Your task to perform on an android device: create a new album in the google photos Image 0: 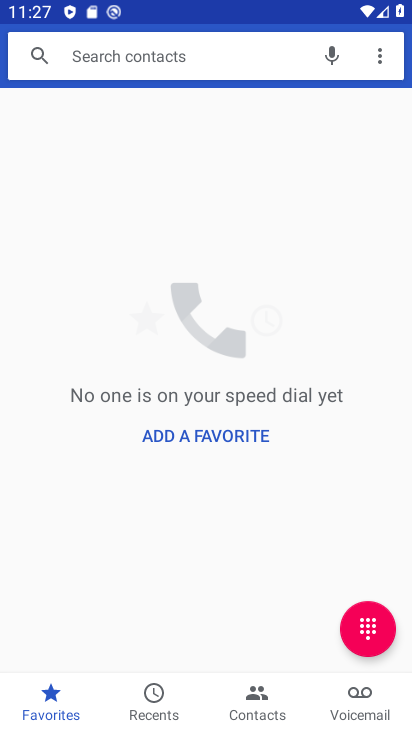
Step 0: press home button
Your task to perform on an android device: create a new album in the google photos Image 1: 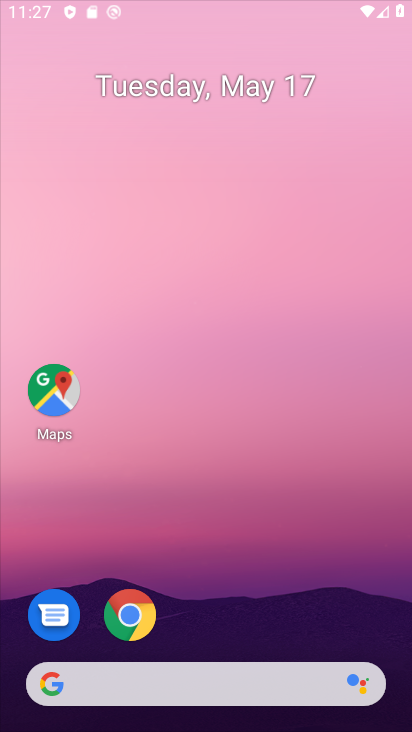
Step 1: drag from (247, 542) to (244, 26)
Your task to perform on an android device: create a new album in the google photos Image 2: 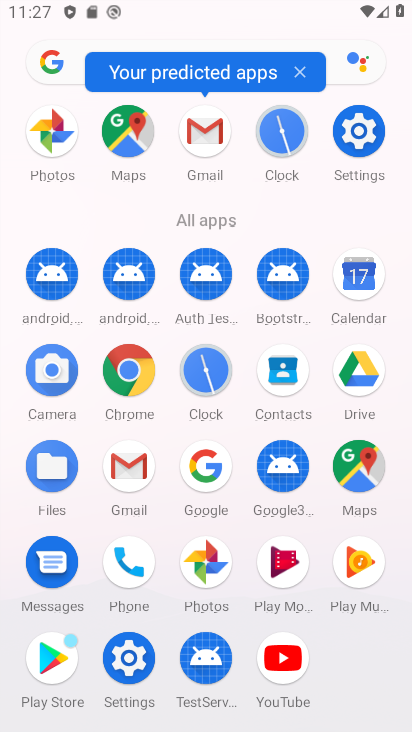
Step 2: click (59, 130)
Your task to perform on an android device: create a new album in the google photos Image 3: 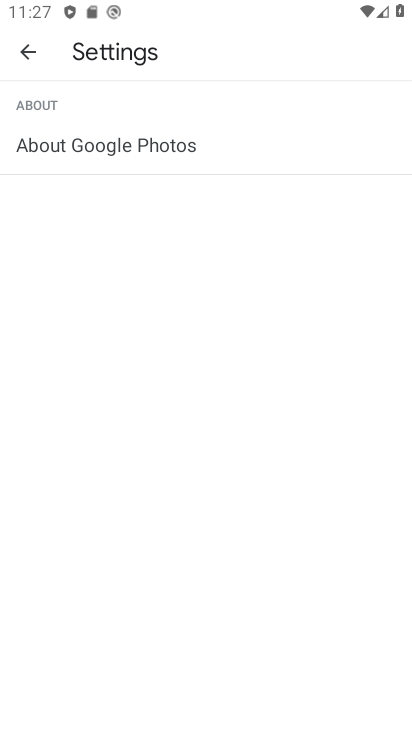
Step 3: click (19, 49)
Your task to perform on an android device: create a new album in the google photos Image 4: 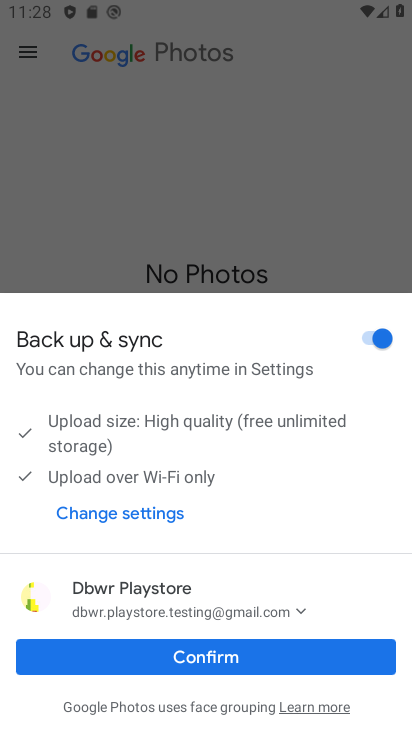
Step 4: click (251, 657)
Your task to perform on an android device: create a new album in the google photos Image 5: 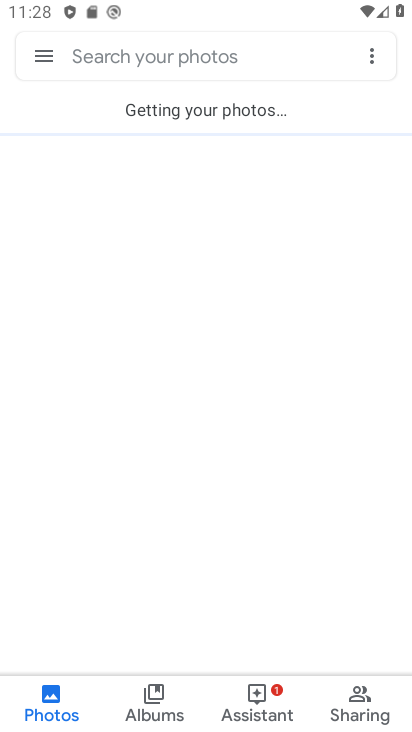
Step 5: drag from (242, 315) to (208, 182)
Your task to perform on an android device: create a new album in the google photos Image 6: 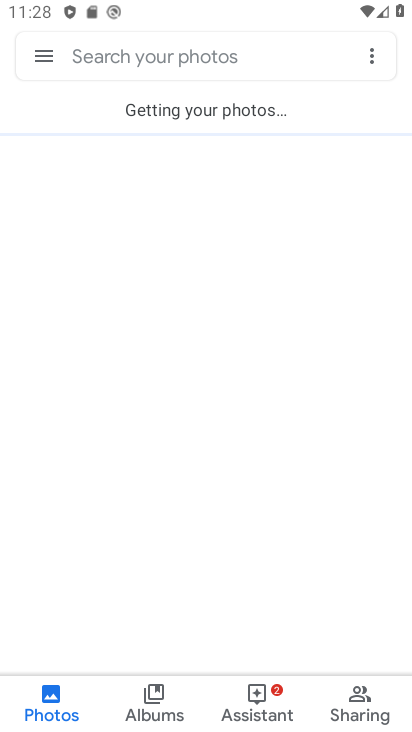
Step 6: click (149, 699)
Your task to perform on an android device: create a new album in the google photos Image 7: 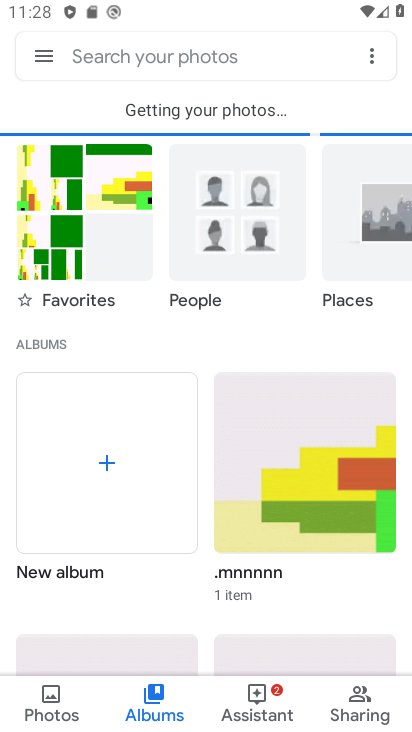
Step 7: click (53, 695)
Your task to perform on an android device: create a new album in the google photos Image 8: 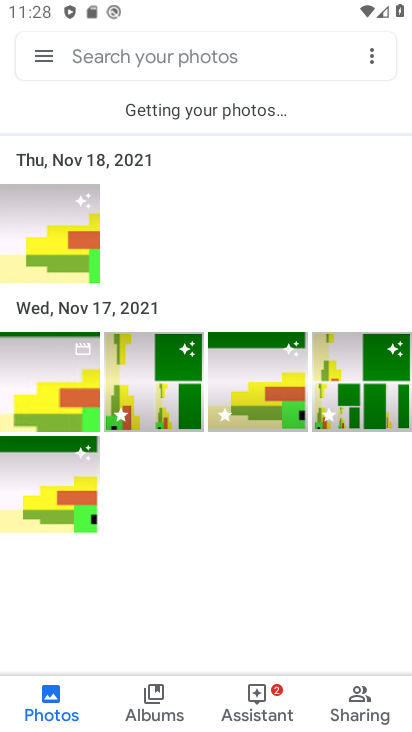
Step 8: click (160, 366)
Your task to perform on an android device: create a new album in the google photos Image 9: 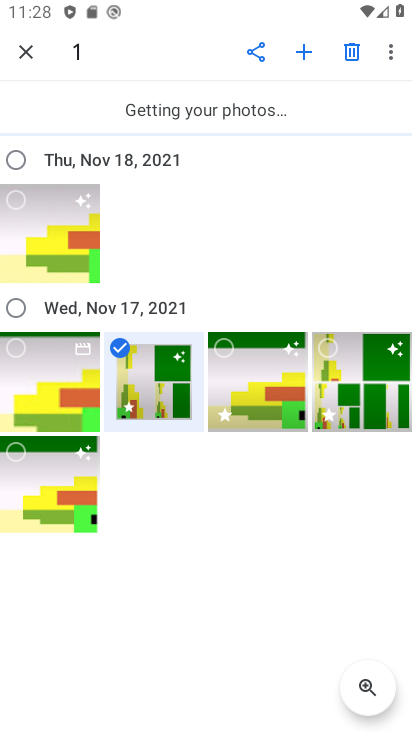
Step 9: click (80, 350)
Your task to perform on an android device: create a new album in the google photos Image 10: 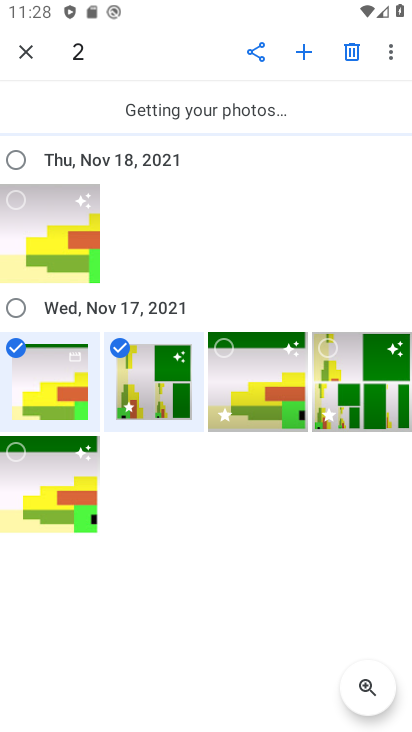
Step 10: click (268, 346)
Your task to perform on an android device: create a new album in the google photos Image 11: 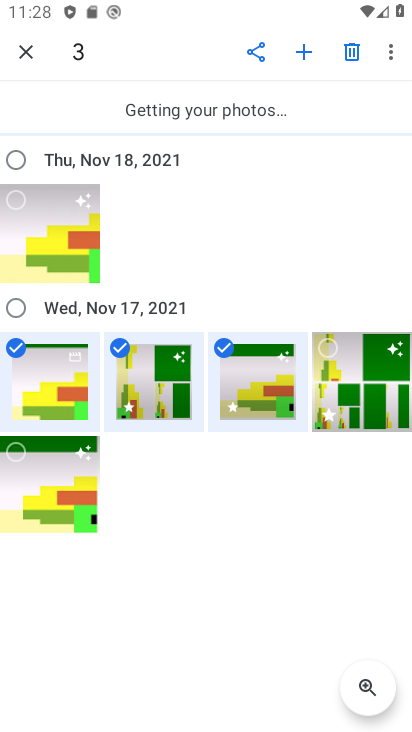
Step 11: click (324, 365)
Your task to perform on an android device: create a new album in the google photos Image 12: 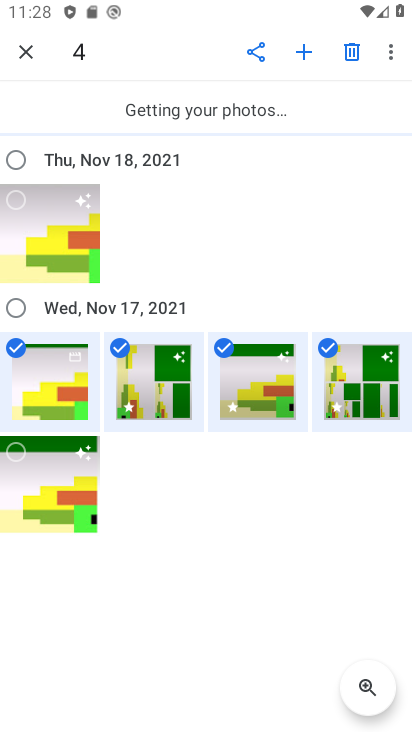
Step 12: click (37, 231)
Your task to perform on an android device: create a new album in the google photos Image 13: 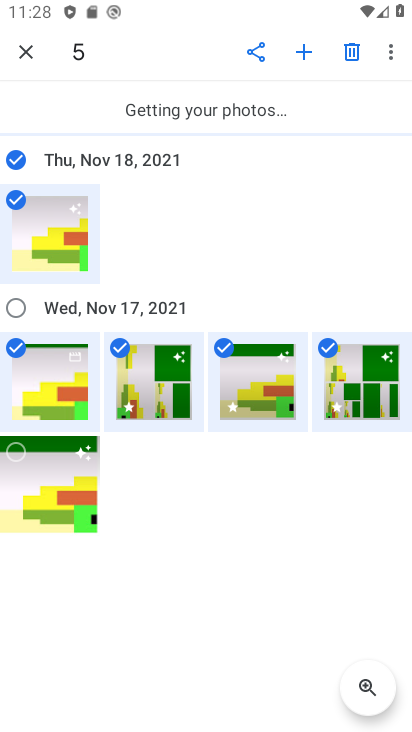
Step 13: click (27, 456)
Your task to perform on an android device: create a new album in the google photos Image 14: 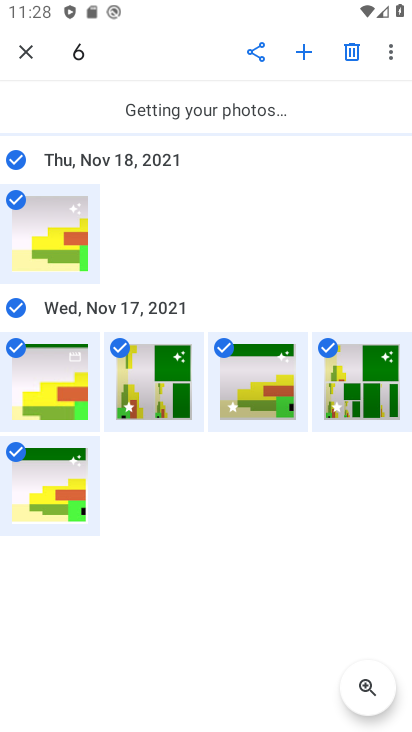
Step 14: click (309, 53)
Your task to perform on an android device: create a new album in the google photos Image 15: 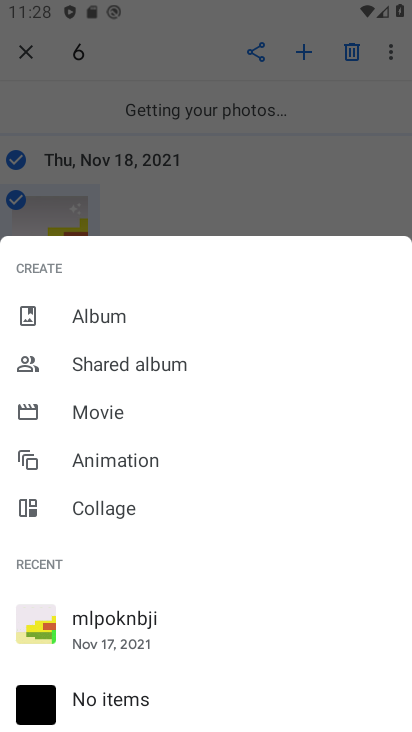
Step 15: click (151, 314)
Your task to perform on an android device: create a new album in the google photos Image 16: 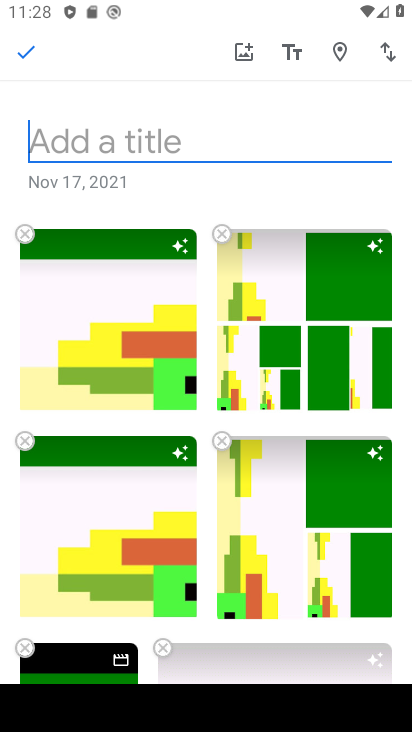
Step 16: type "all"
Your task to perform on an android device: create a new album in the google photos Image 17: 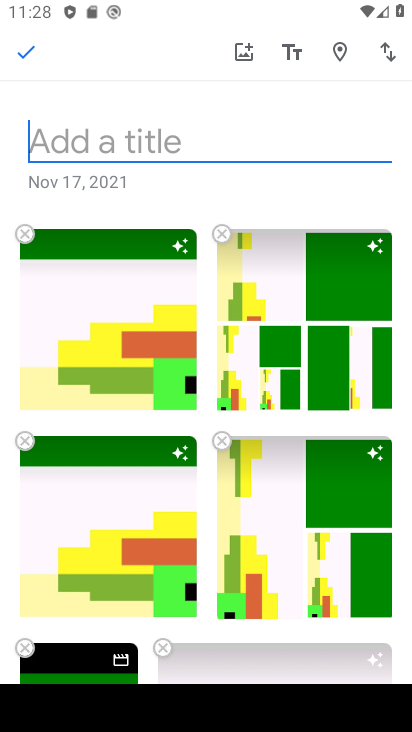
Step 17: click (31, 46)
Your task to perform on an android device: create a new album in the google photos Image 18: 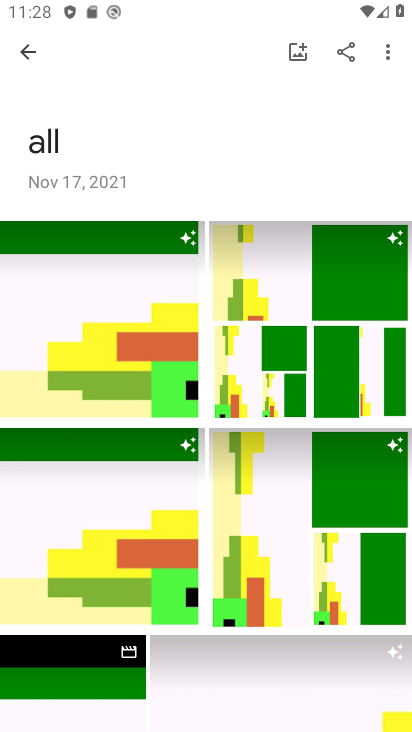
Step 18: task complete